Your task to perform on an android device: Open internet settings Image 0: 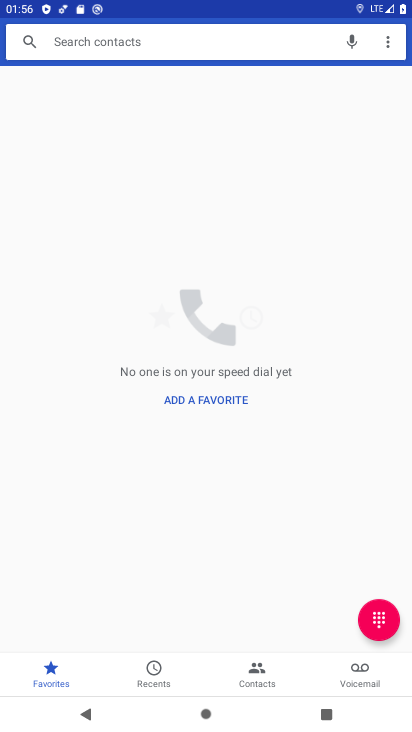
Step 0: press home button
Your task to perform on an android device: Open internet settings Image 1: 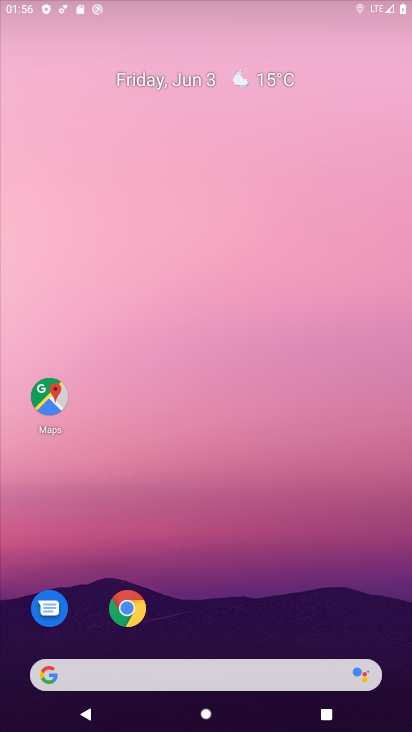
Step 1: drag from (291, 570) to (209, 90)
Your task to perform on an android device: Open internet settings Image 2: 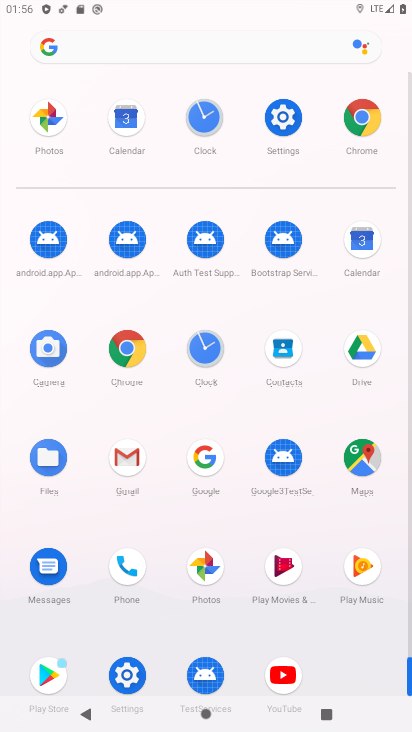
Step 2: click (288, 126)
Your task to perform on an android device: Open internet settings Image 3: 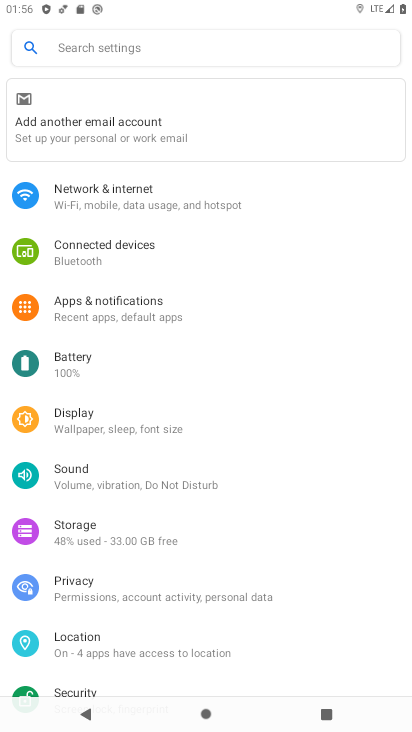
Step 3: click (133, 203)
Your task to perform on an android device: Open internet settings Image 4: 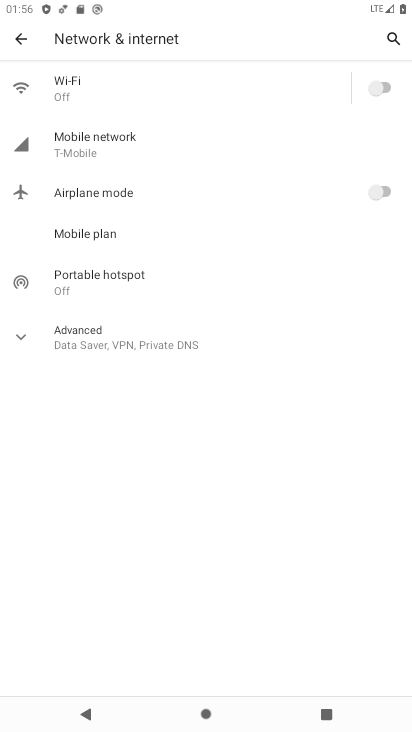
Step 4: click (112, 329)
Your task to perform on an android device: Open internet settings Image 5: 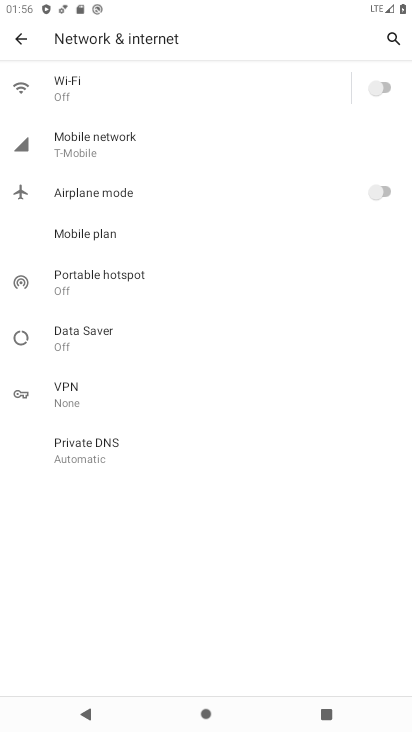
Step 5: task complete